Your task to perform on an android device: Go to internet settings Image 0: 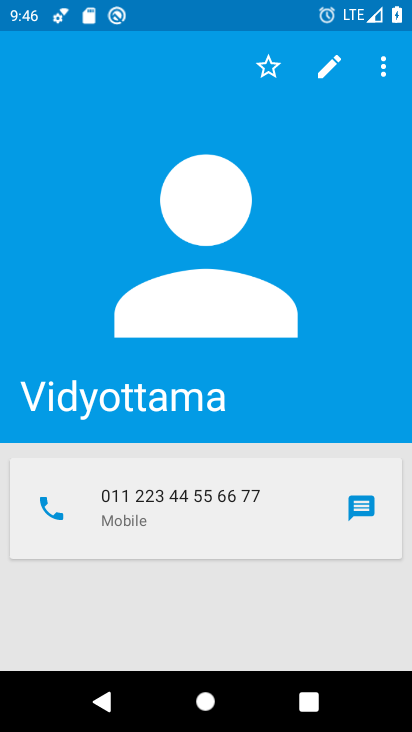
Step 0: press home button
Your task to perform on an android device: Go to internet settings Image 1: 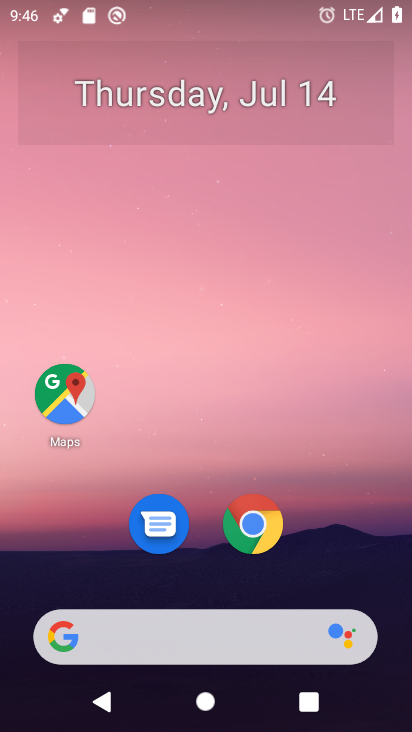
Step 1: drag from (311, 535) to (298, 46)
Your task to perform on an android device: Go to internet settings Image 2: 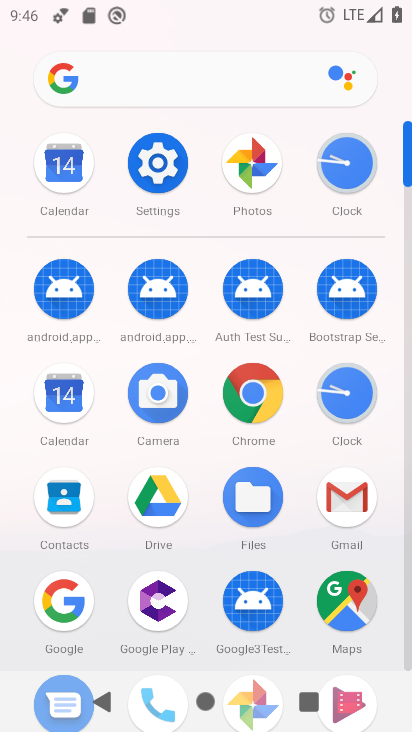
Step 2: click (166, 159)
Your task to perform on an android device: Go to internet settings Image 3: 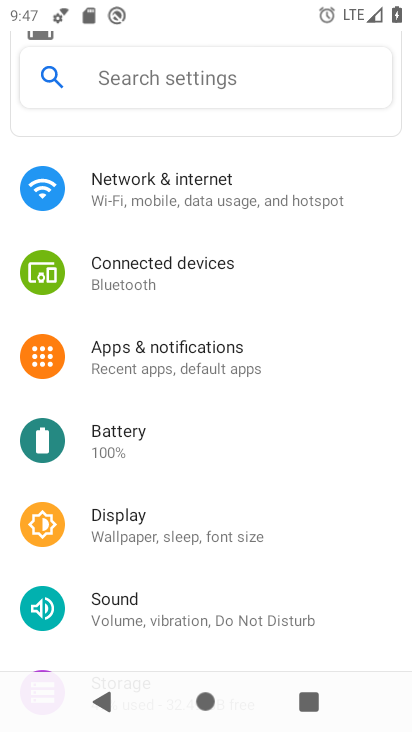
Step 3: click (244, 188)
Your task to perform on an android device: Go to internet settings Image 4: 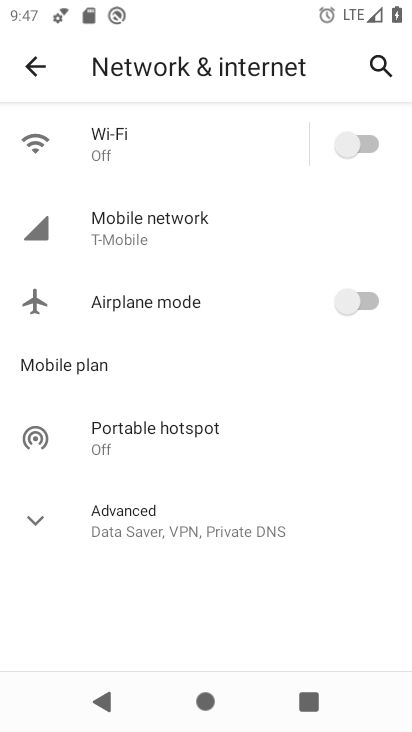
Step 4: task complete